Your task to perform on an android device: Is it going to rain today? Image 0: 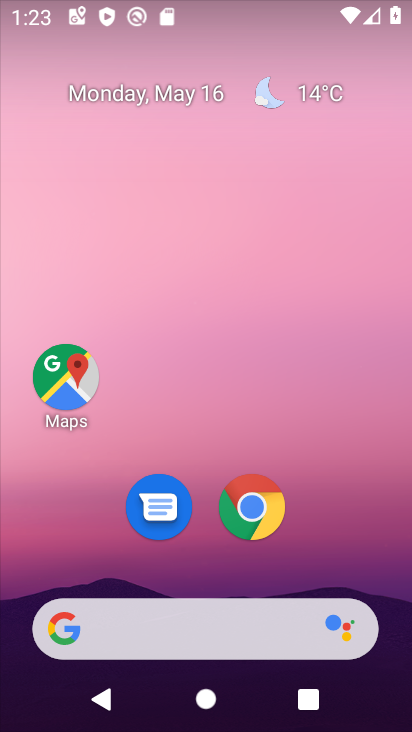
Step 0: drag from (212, 585) to (207, 199)
Your task to perform on an android device: Is it going to rain today? Image 1: 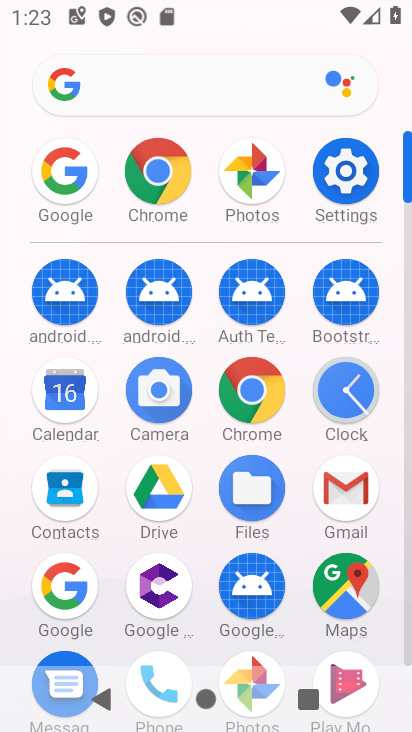
Step 1: click (72, 586)
Your task to perform on an android device: Is it going to rain today? Image 2: 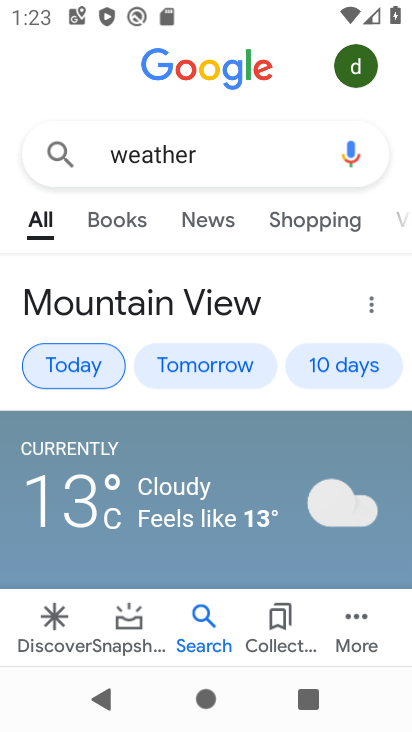
Step 2: task complete